Your task to perform on an android device: search for starred emails in the gmail app Image 0: 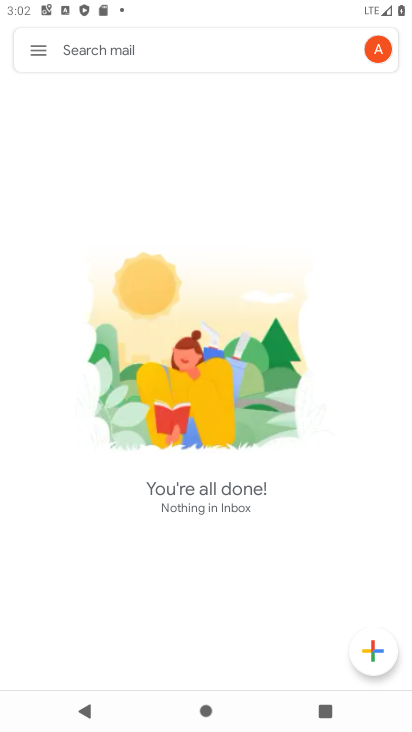
Step 0: press home button
Your task to perform on an android device: search for starred emails in the gmail app Image 1: 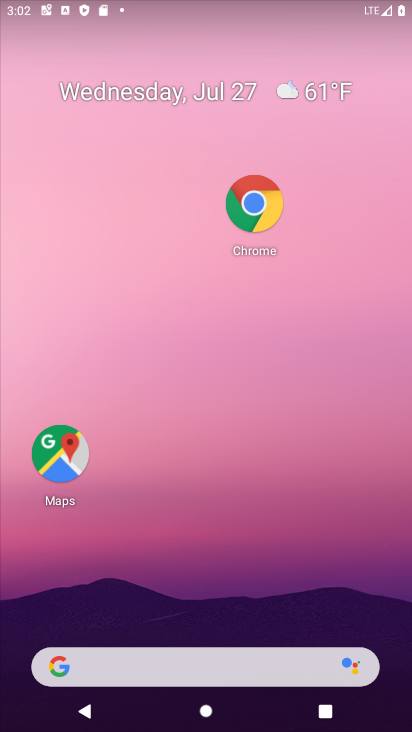
Step 1: drag from (223, 543) to (251, 189)
Your task to perform on an android device: search for starred emails in the gmail app Image 2: 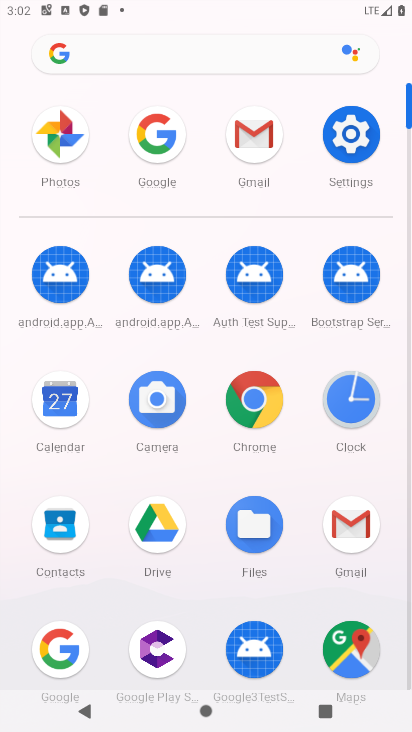
Step 2: drag from (207, 546) to (210, 313)
Your task to perform on an android device: search for starred emails in the gmail app Image 3: 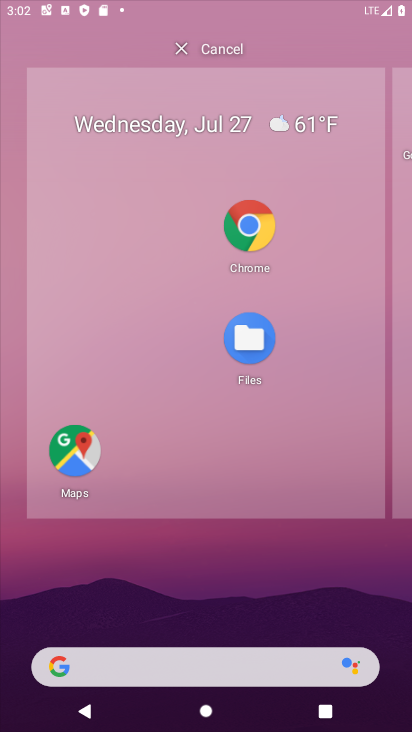
Step 3: drag from (218, 532) to (190, 332)
Your task to perform on an android device: search for starred emails in the gmail app Image 4: 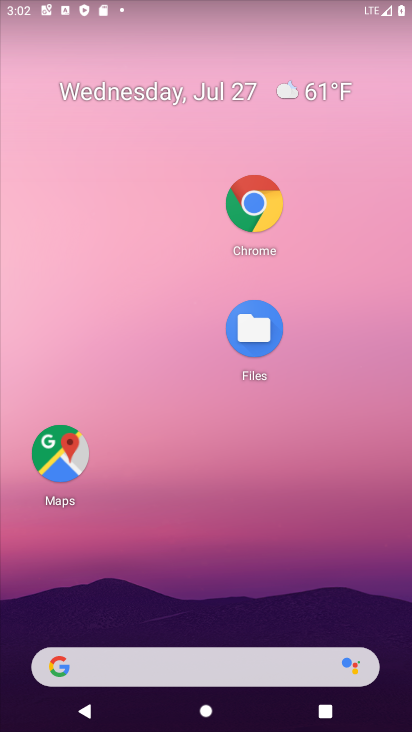
Step 4: drag from (214, 564) to (175, 230)
Your task to perform on an android device: search for starred emails in the gmail app Image 5: 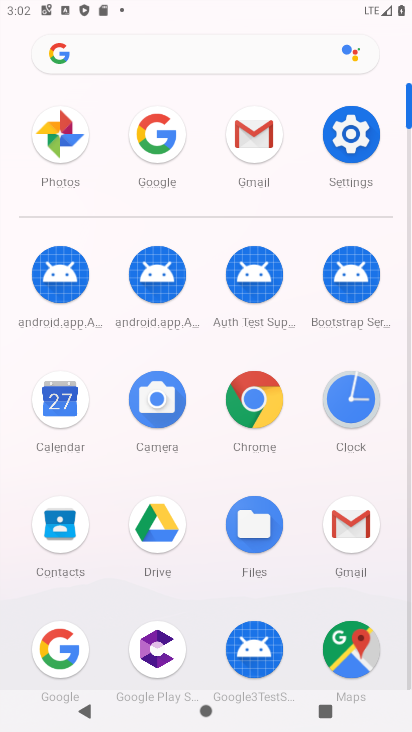
Step 5: click (272, 138)
Your task to perform on an android device: search for starred emails in the gmail app Image 6: 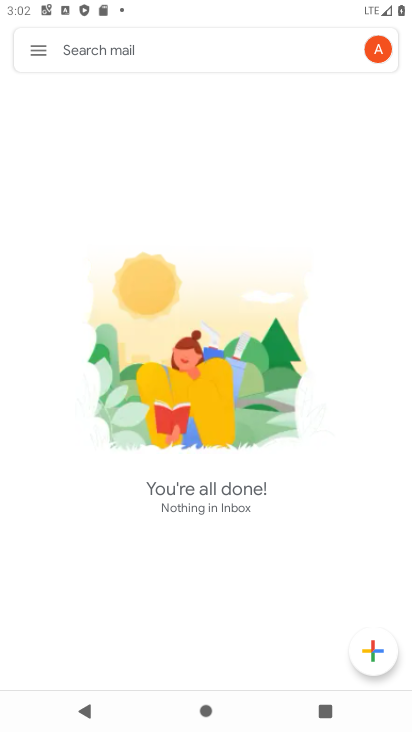
Step 6: click (41, 52)
Your task to perform on an android device: search for starred emails in the gmail app Image 7: 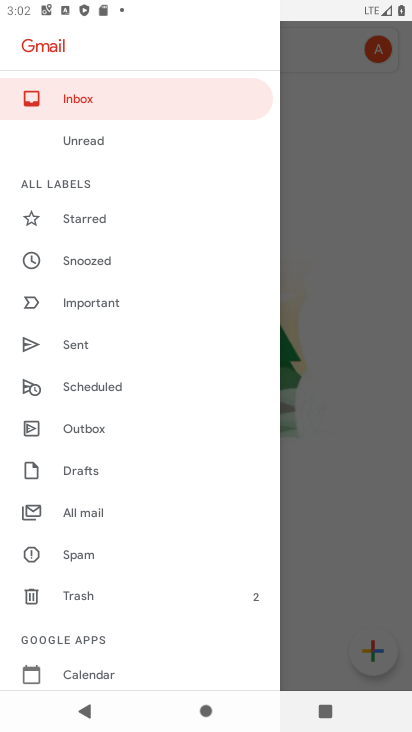
Step 7: click (113, 225)
Your task to perform on an android device: search for starred emails in the gmail app Image 8: 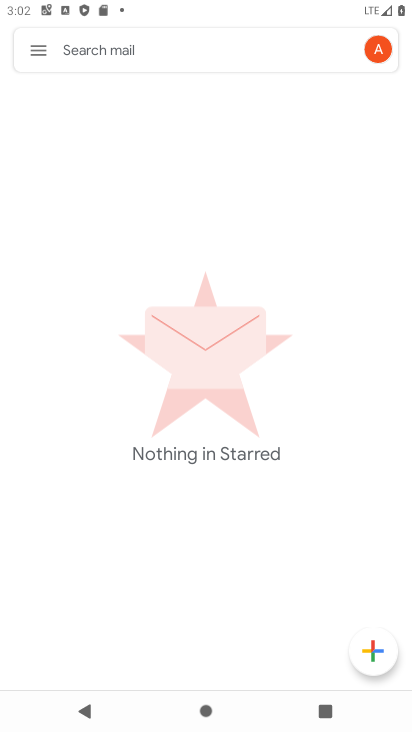
Step 8: task complete